Your task to perform on an android device: turn on priority inbox in the gmail app Image 0: 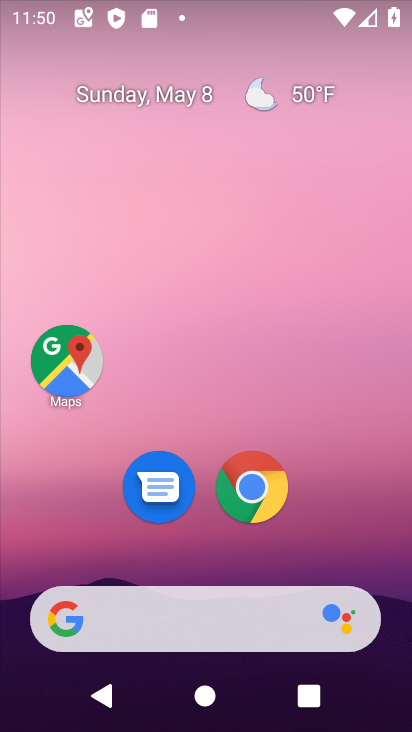
Step 0: press home button
Your task to perform on an android device: turn on priority inbox in the gmail app Image 1: 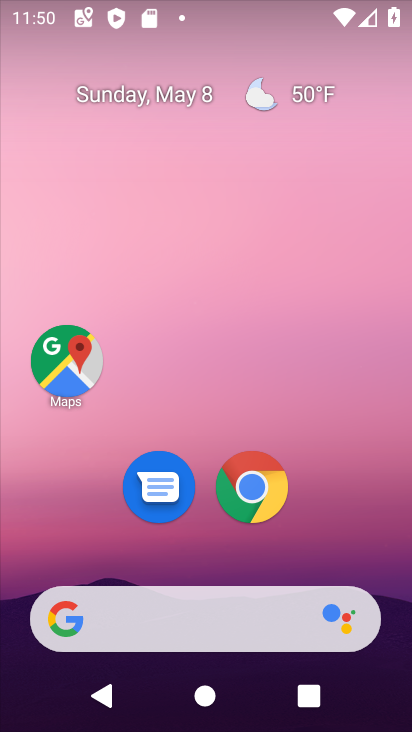
Step 1: drag from (332, 386) to (340, 208)
Your task to perform on an android device: turn on priority inbox in the gmail app Image 2: 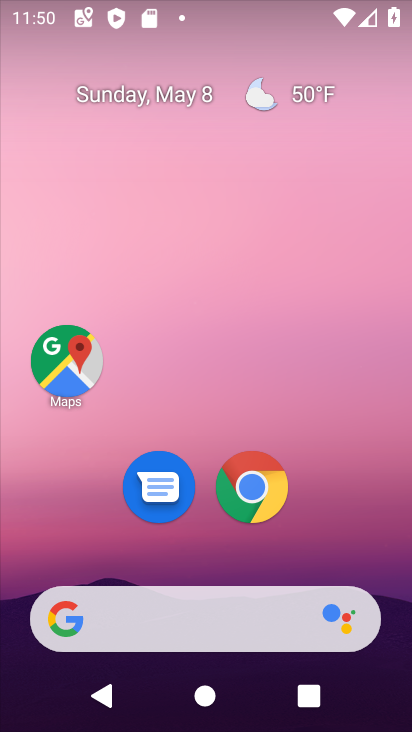
Step 2: drag from (331, 430) to (328, 151)
Your task to perform on an android device: turn on priority inbox in the gmail app Image 3: 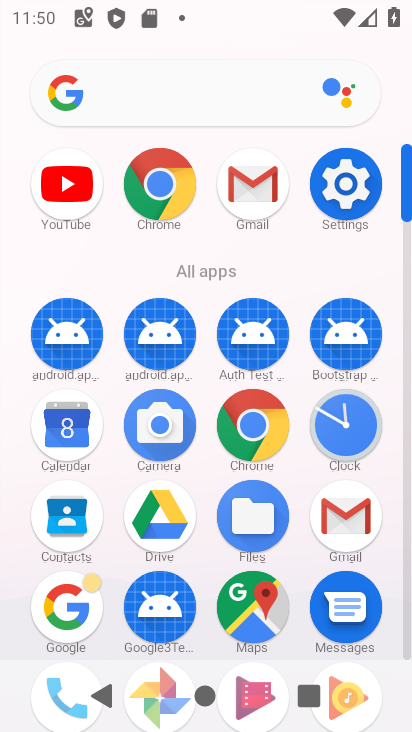
Step 3: click (275, 187)
Your task to perform on an android device: turn on priority inbox in the gmail app Image 4: 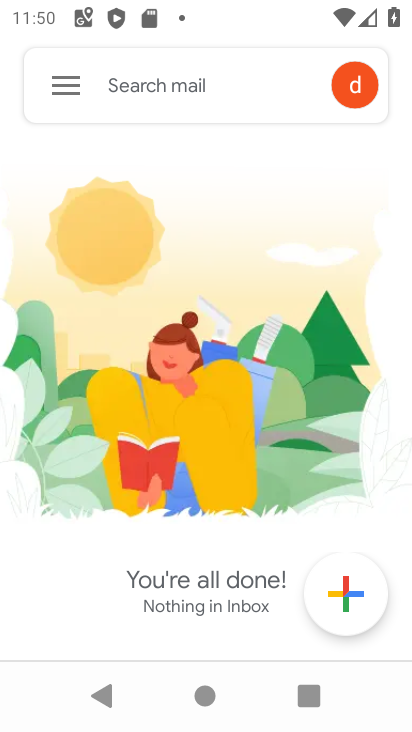
Step 4: click (62, 92)
Your task to perform on an android device: turn on priority inbox in the gmail app Image 5: 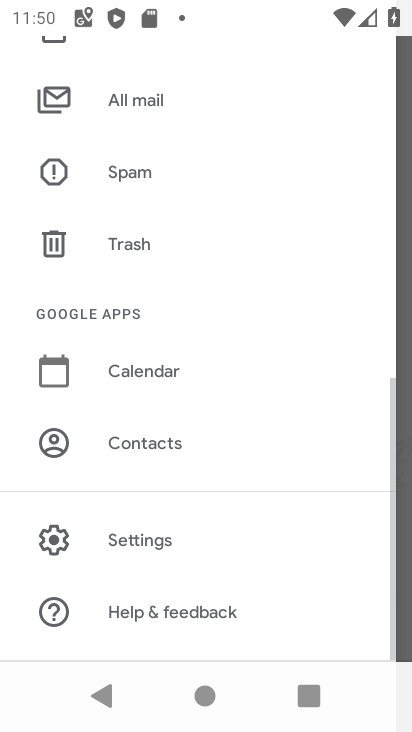
Step 5: click (146, 545)
Your task to perform on an android device: turn on priority inbox in the gmail app Image 6: 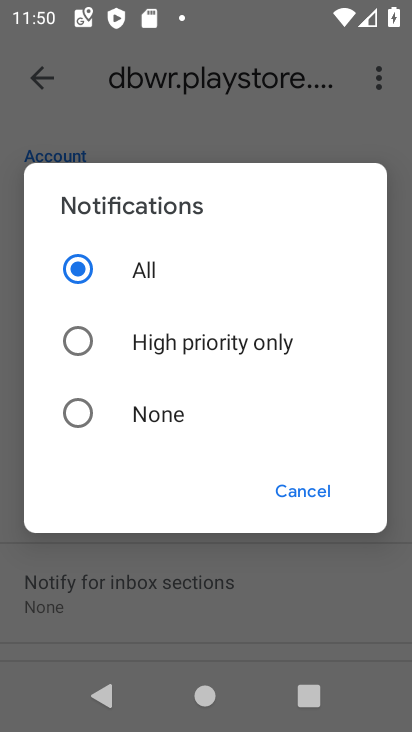
Step 6: press back button
Your task to perform on an android device: turn on priority inbox in the gmail app Image 7: 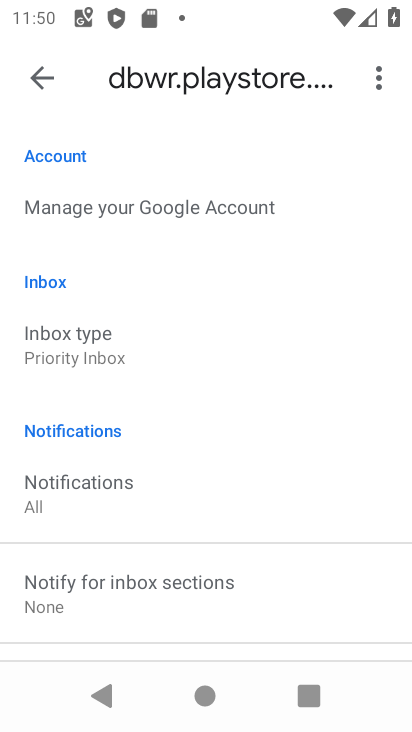
Step 7: click (141, 350)
Your task to perform on an android device: turn on priority inbox in the gmail app Image 8: 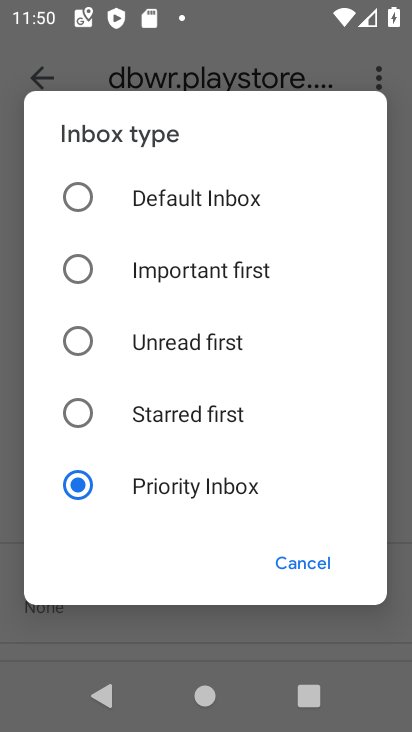
Step 8: task complete